Your task to perform on an android device: Show me productivity apps on the Play Store Image 0: 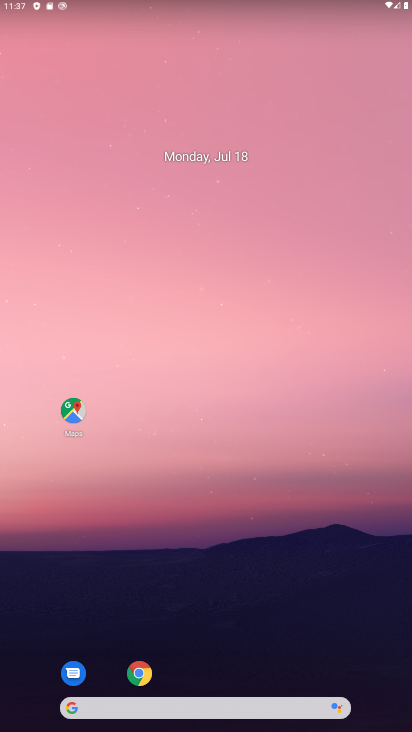
Step 0: drag from (262, 643) to (221, 80)
Your task to perform on an android device: Show me productivity apps on the Play Store Image 1: 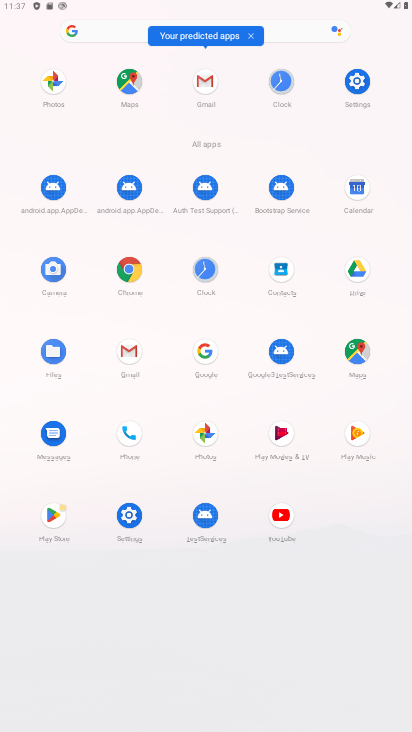
Step 1: click (57, 519)
Your task to perform on an android device: Show me productivity apps on the Play Store Image 2: 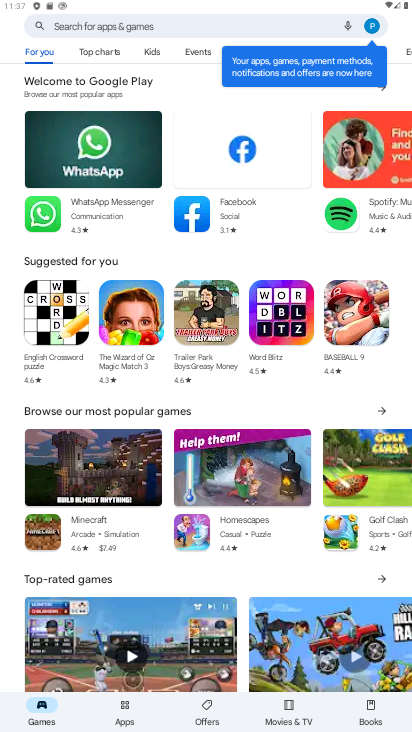
Step 2: click (130, 715)
Your task to perform on an android device: Show me productivity apps on the Play Store Image 3: 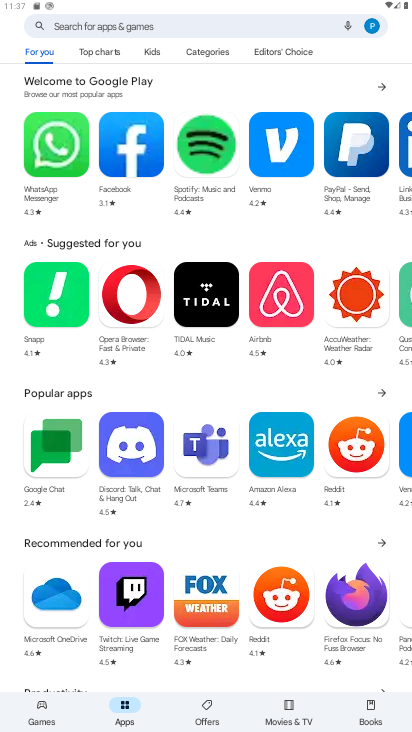
Step 3: click (216, 50)
Your task to perform on an android device: Show me productivity apps on the Play Store Image 4: 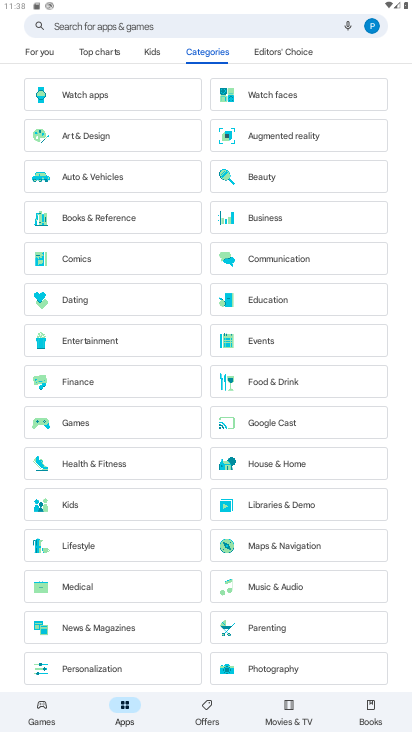
Step 4: drag from (353, 638) to (311, 315)
Your task to perform on an android device: Show me productivity apps on the Play Store Image 5: 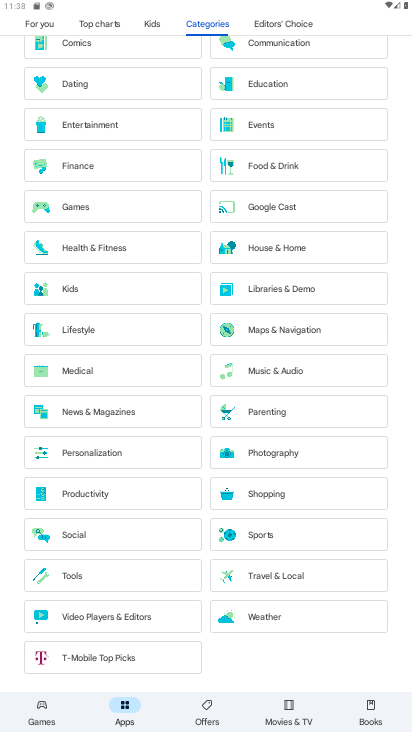
Step 5: click (126, 493)
Your task to perform on an android device: Show me productivity apps on the Play Store Image 6: 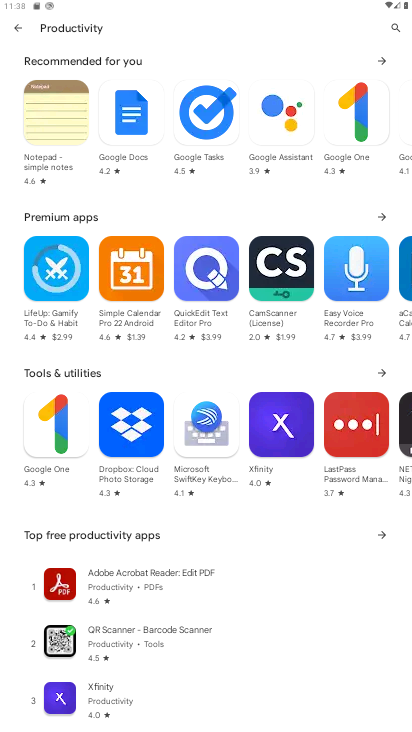
Step 6: task complete